Your task to perform on an android device: all mails in gmail Image 0: 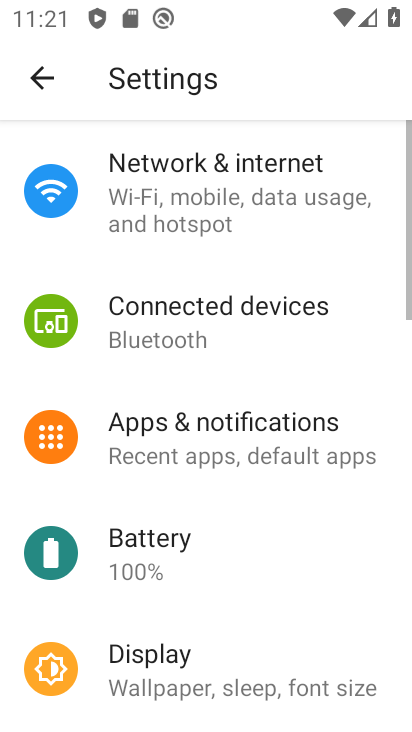
Step 0: press home button
Your task to perform on an android device: all mails in gmail Image 1: 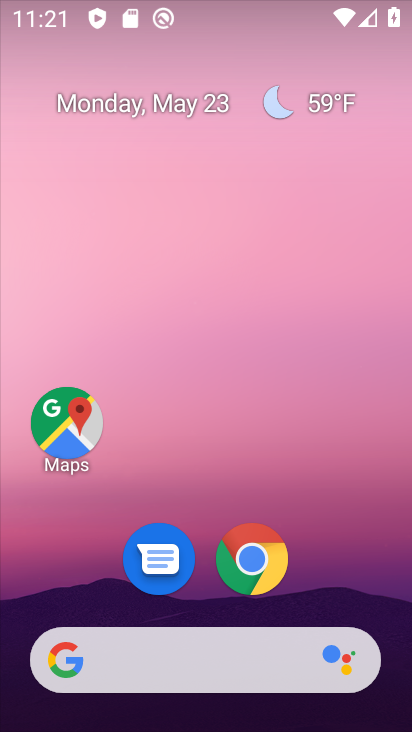
Step 1: drag from (391, 662) to (313, 105)
Your task to perform on an android device: all mails in gmail Image 2: 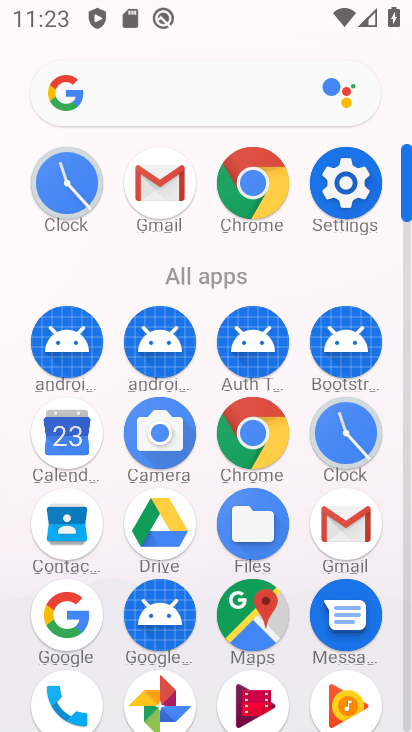
Step 2: click (337, 527)
Your task to perform on an android device: all mails in gmail Image 3: 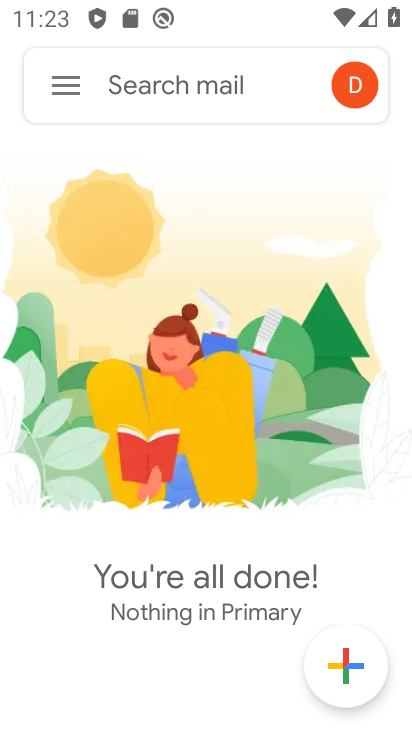
Step 3: click (59, 88)
Your task to perform on an android device: all mails in gmail Image 4: 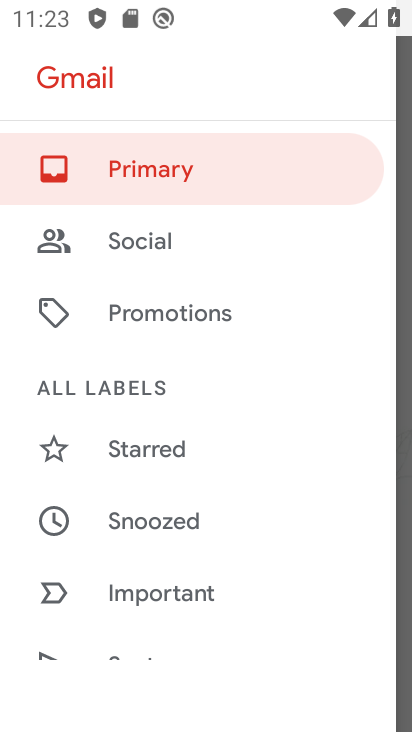
Step 4: drag from (134, 605) to (172, 131)
Your task to perform on an android device: all mails in gmail Image 5: 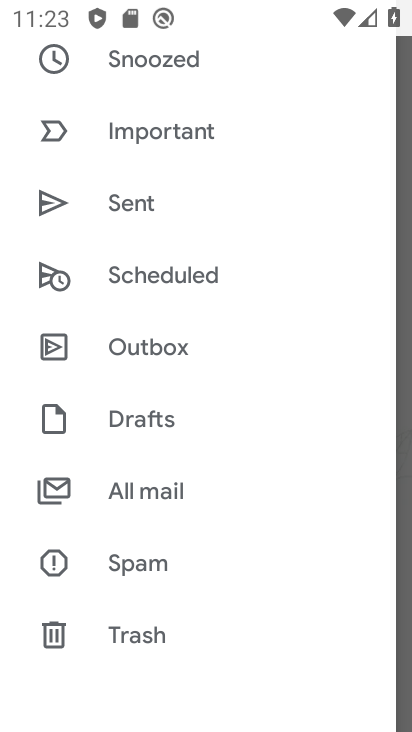
Step 5: click (166, 496)
Your task to perform on an android device: all mails in gmail Image 6: 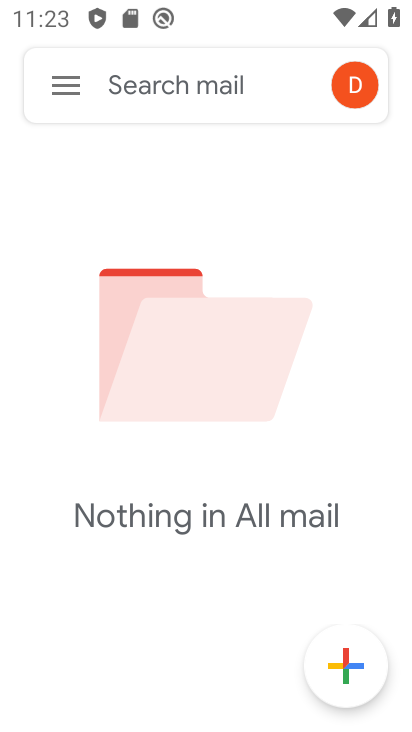
Step 6: task complete